Your task to perform on an android device: open a bookmark in the chrome app Image 0: 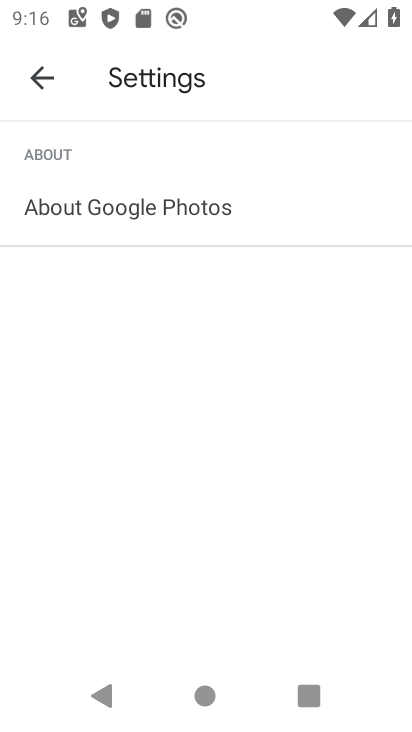
Step 0: press home button
Your task to perform on an android device: open a bookmark in the chrome app Image 1: 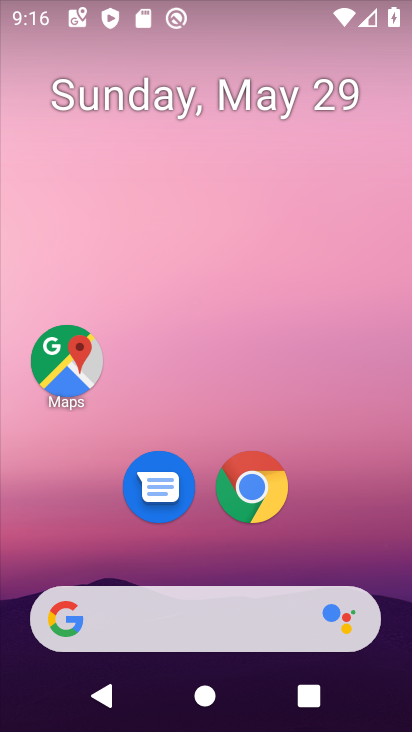
Step 1: click (246, 505)
Your task to perform on an android device: open a bookmark in the chrome app Image 2: 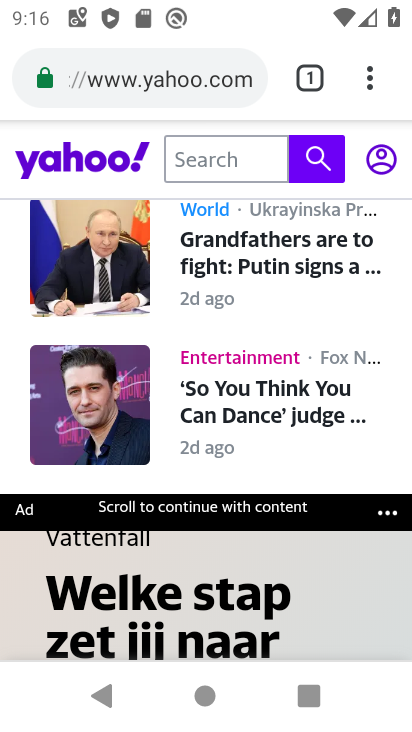
Step 2: click (372, 63)
Your task to perform on an android device: open a bookmark in the chrome app Image 3: 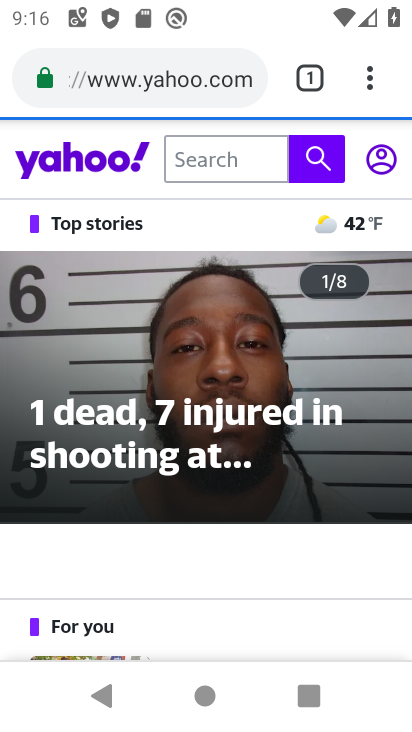
Step 3: click (372, 70)
Your task to perform on an android device: open a bookmark in the chrome app Image 4: 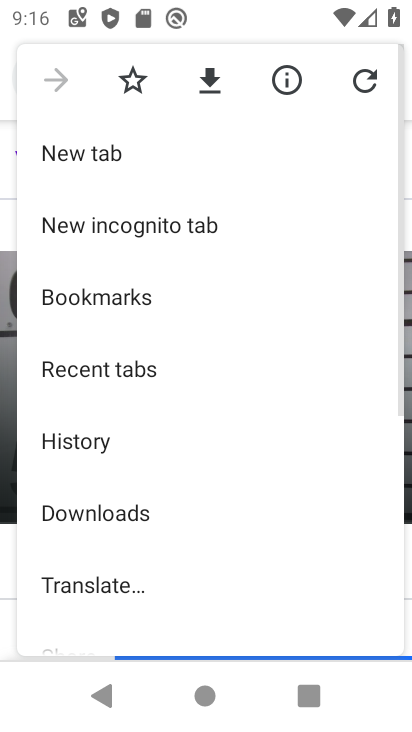
Step 4: click (89, 310)
Your task to perform on an android device: open a bookmark in the chrome app Image 5: 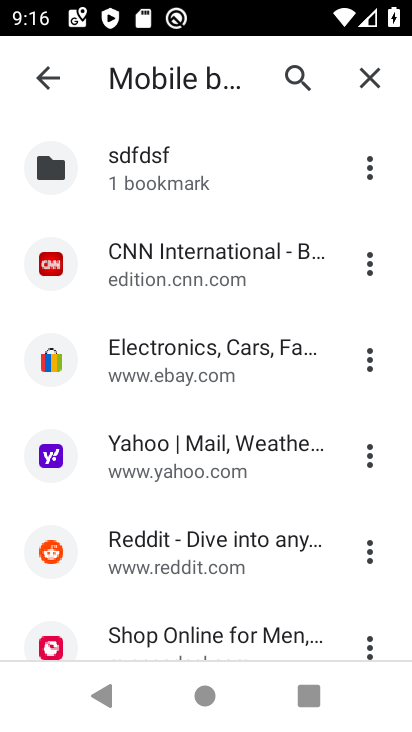
Step 5: click (178, 364)
Your task to perform on an android device: open a bookmark in the chrome app Image 6: 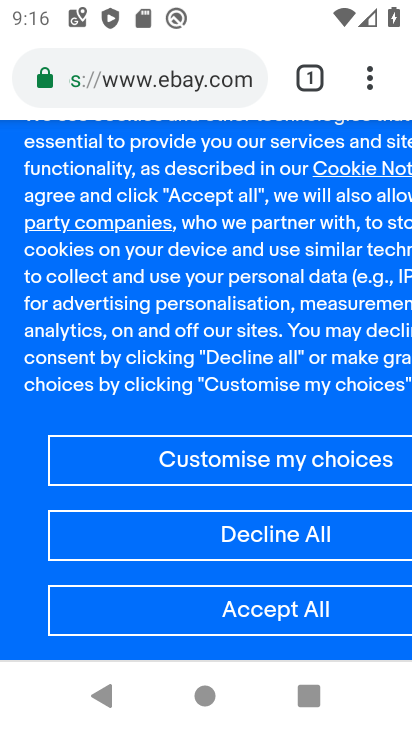
Step 6: click (276, 613)
Your task to perform on an android device: open a bookmark in the chrome app Image 7: 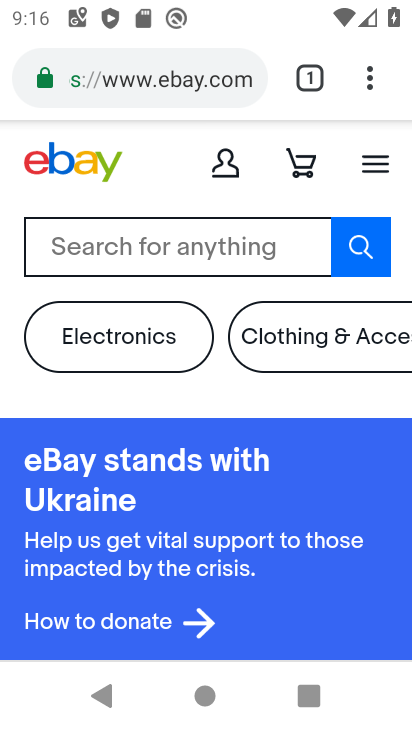
Step 7: task complete